Your task to perform on an android device: check google app version Image 0: 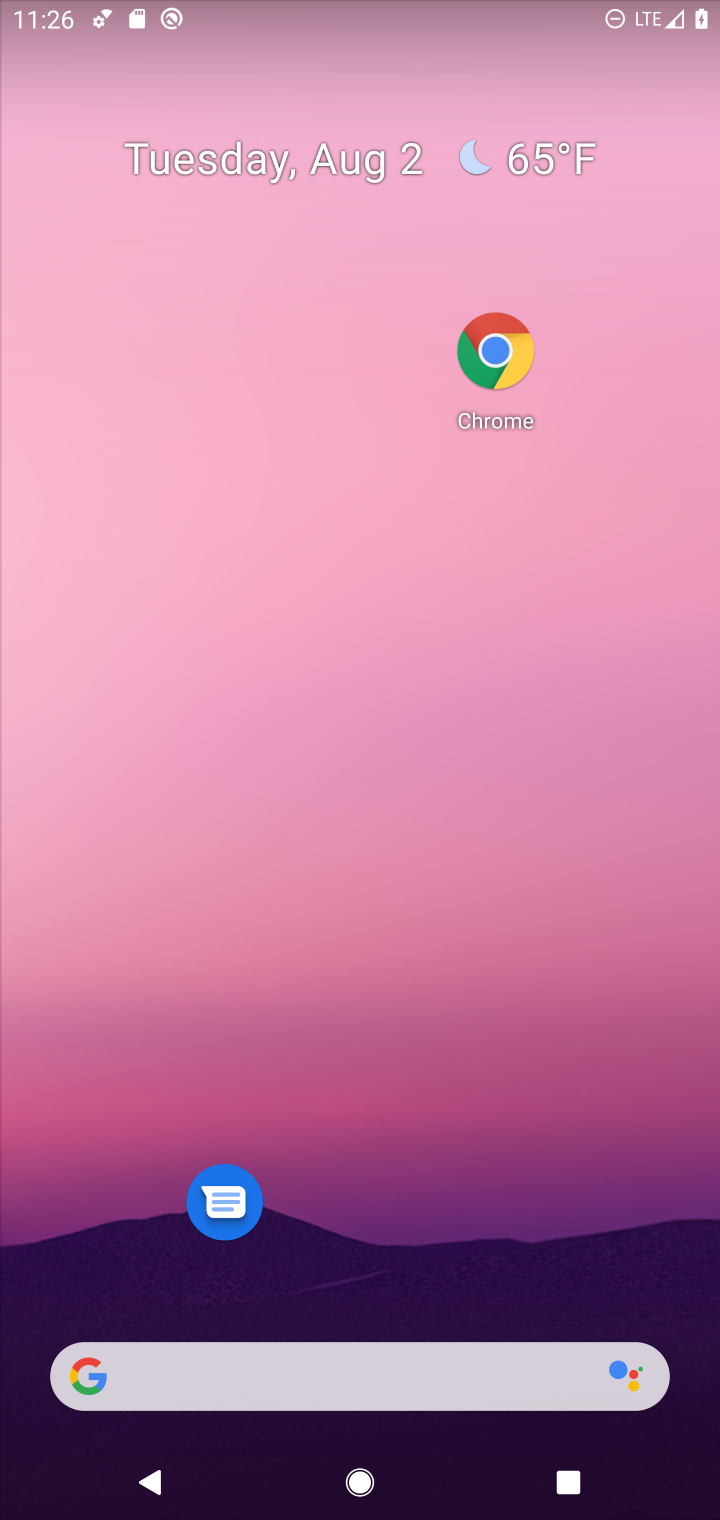
Step 0: drag from (450, 1136) to (439, 78)
Your task to perform on an android device: check google app version Image 1: 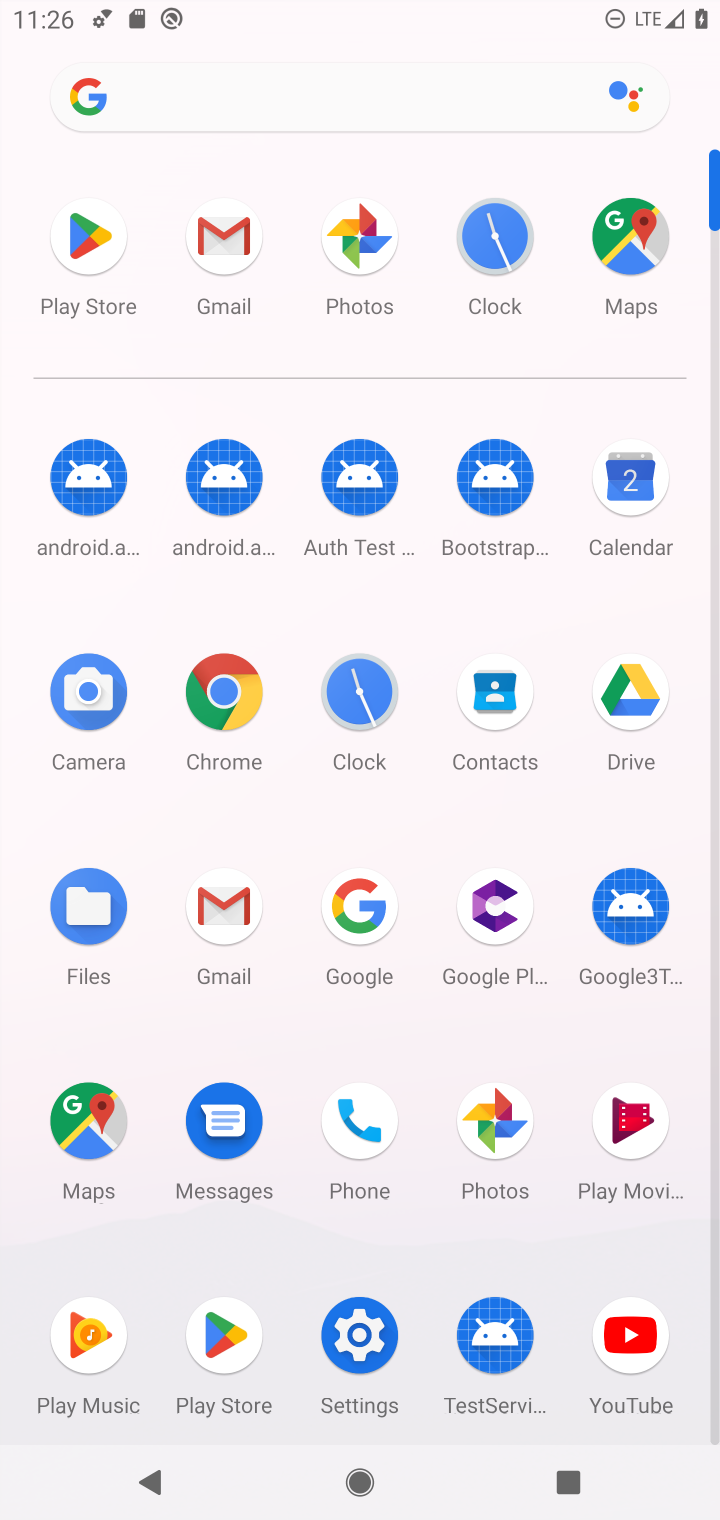
Step 1: click (359, 918)
Your task to perform on an android device: check google app version Image 2: 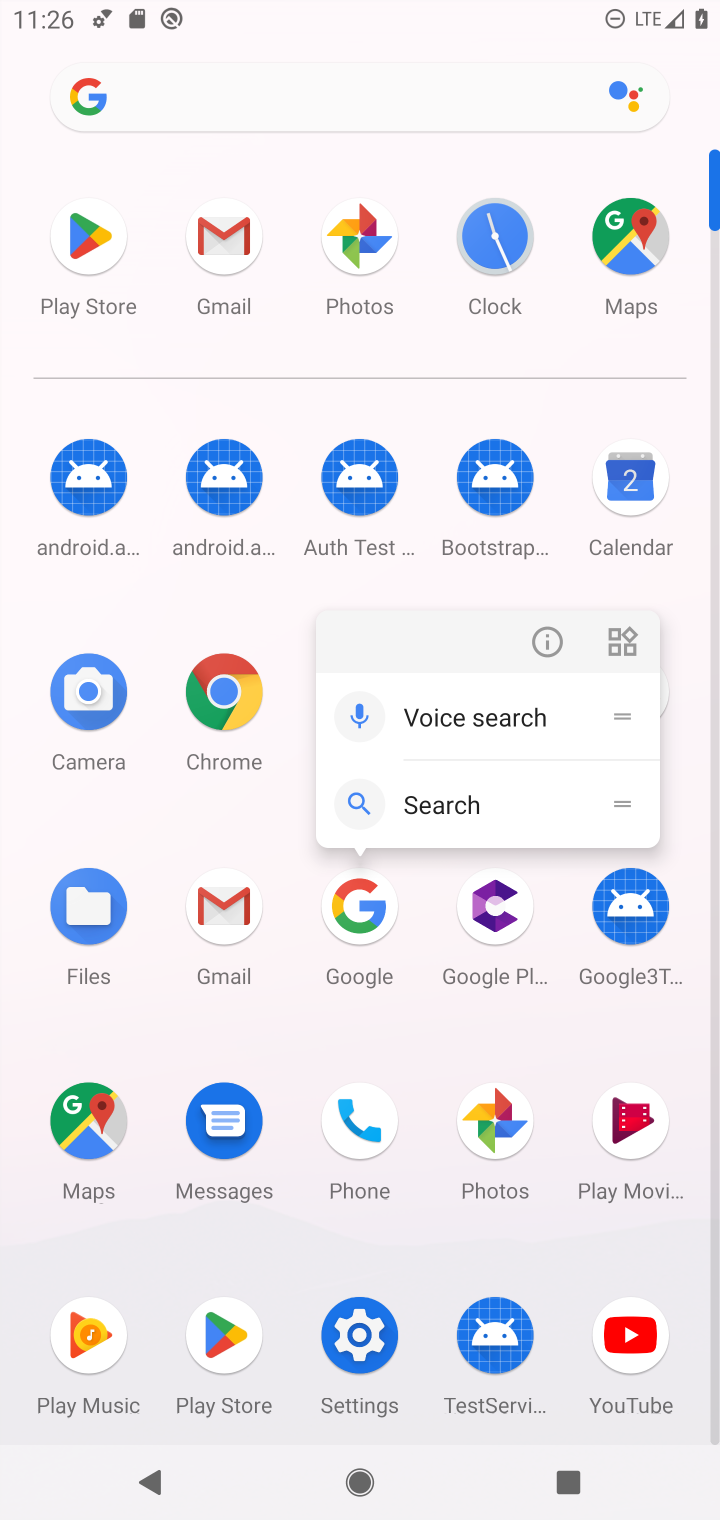
Step 2: click (545, 642)
Your task to perform on an android device: check google app version Image 3: 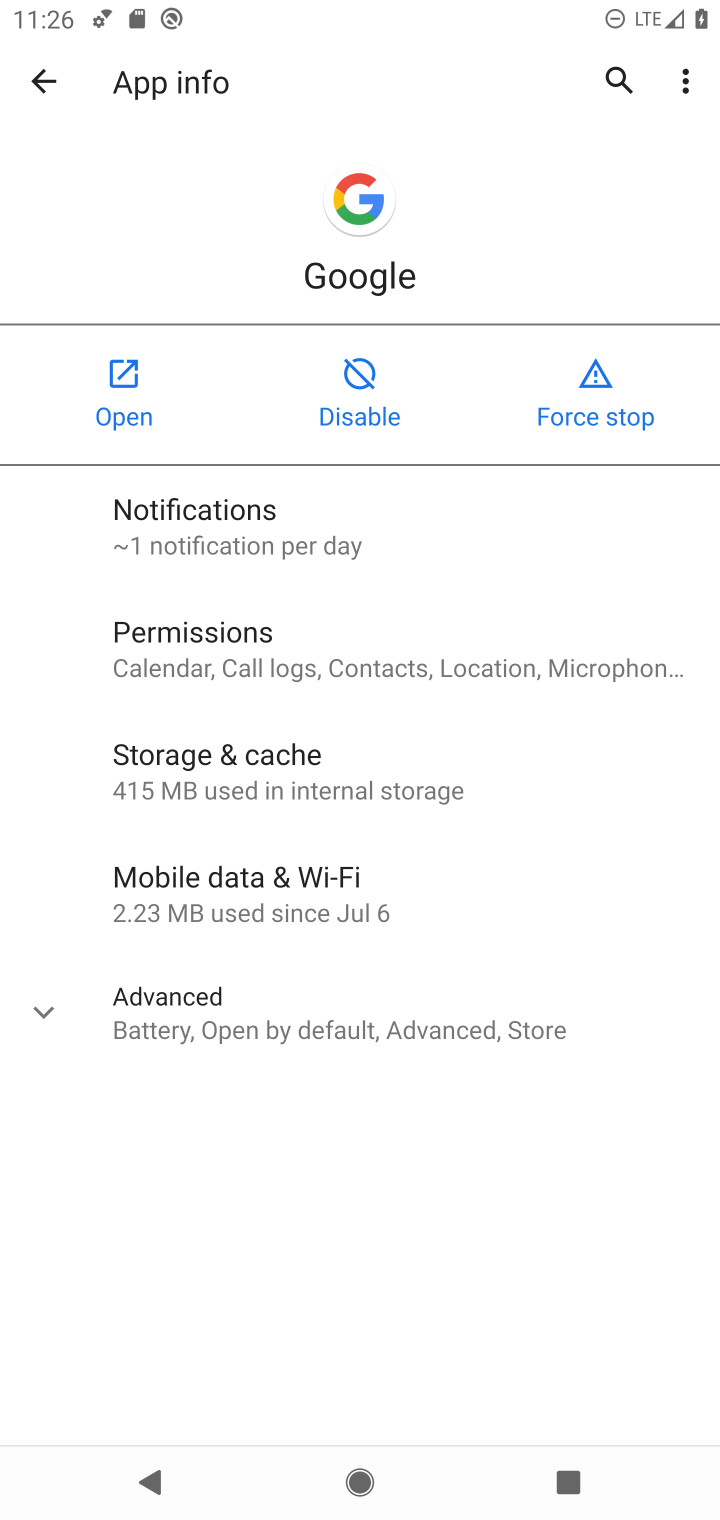
Step 3: click (53, 1022)
Your task to perform on an android device: check google app version Image 4: 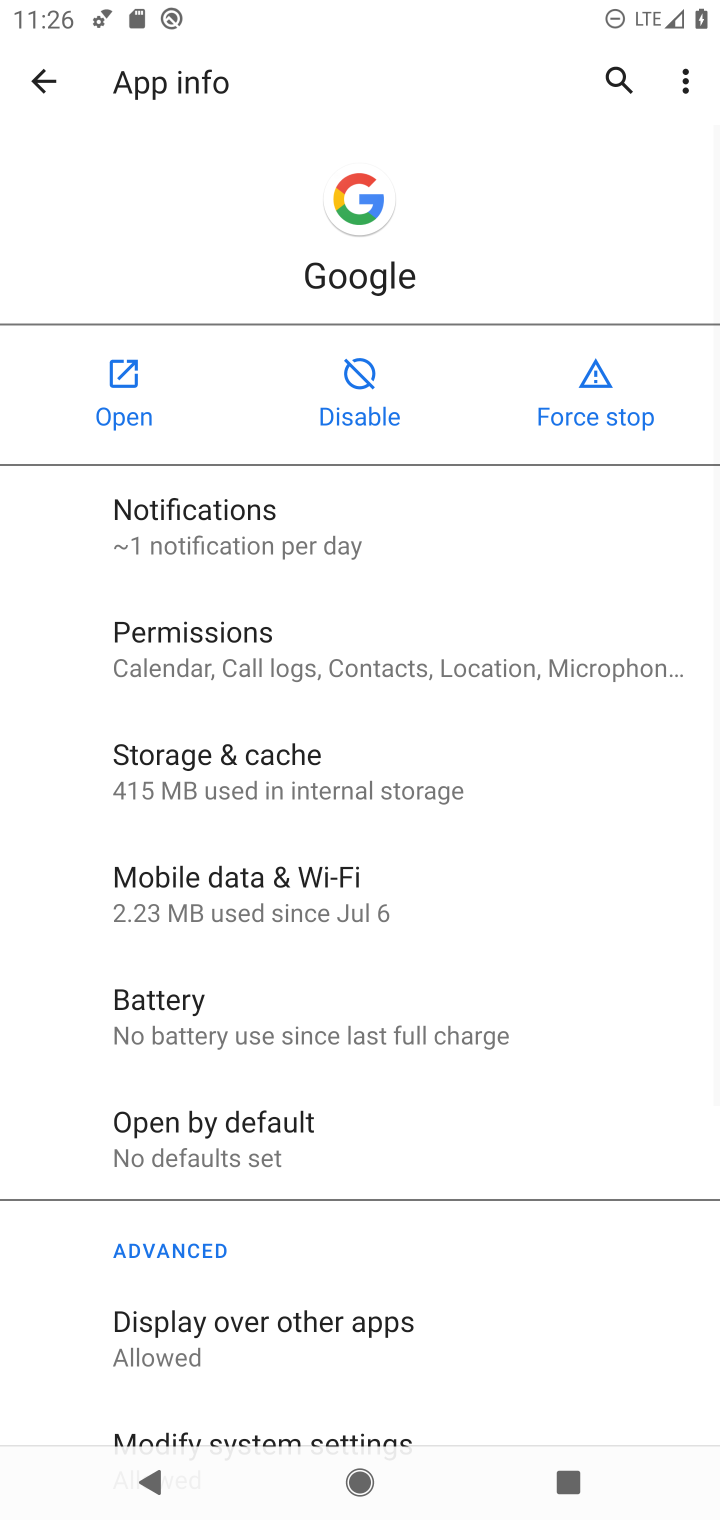
Step 4: task complete